Your task to perform on an android device: What's the weather today? Image 0: 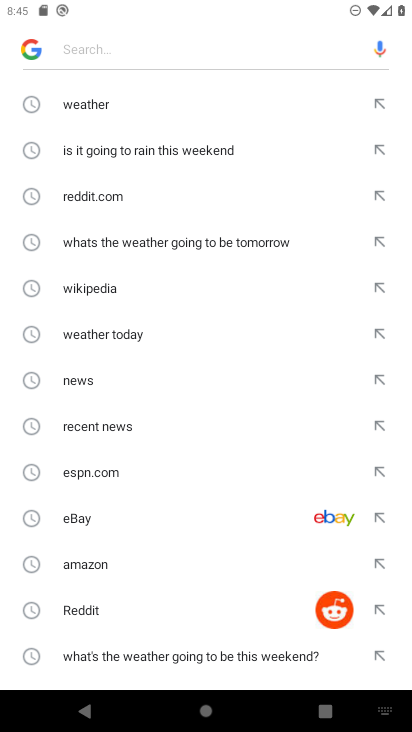
Step 0: click (176, 110)
Your task to perform on an android device: What's the weather today? Image 1: 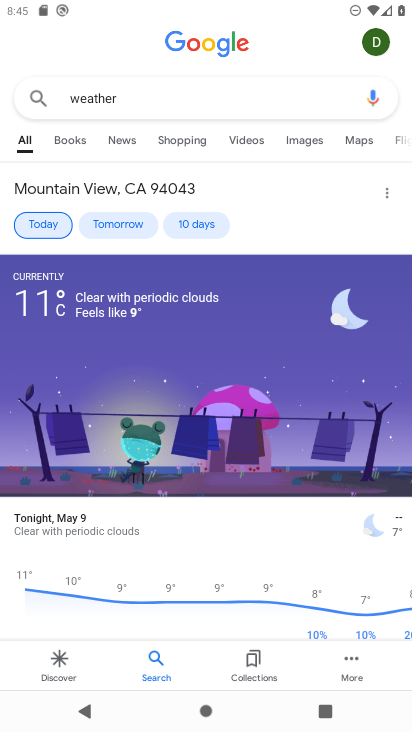
Step 1: task complete